Your task to perform on an android device: toggle wifi Image 0: 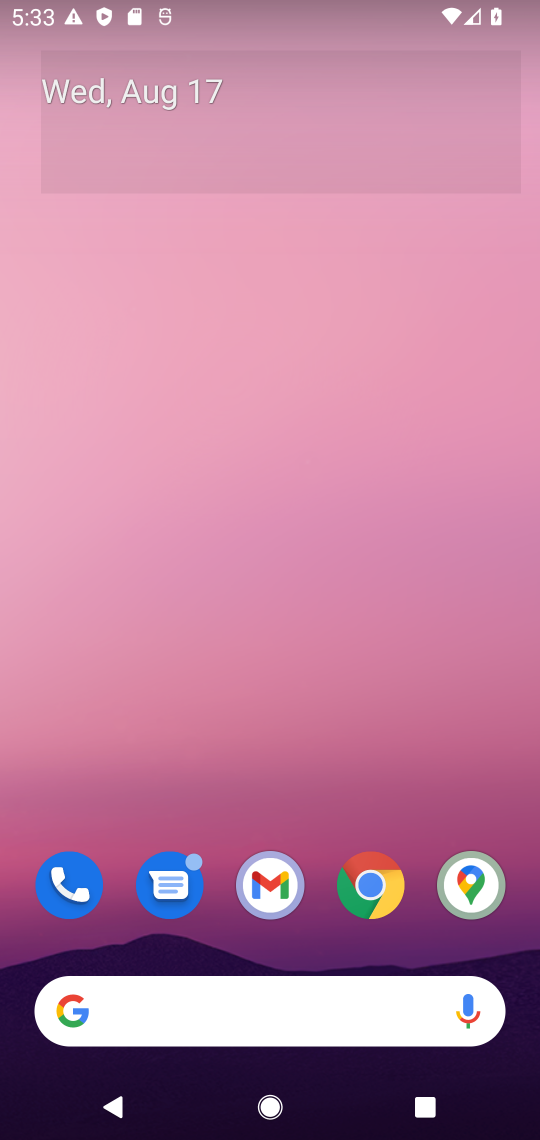
Step 0: drag from (364, 744) to (432, 18)
Your task to perform on an android device: toggle wifi Image 1: 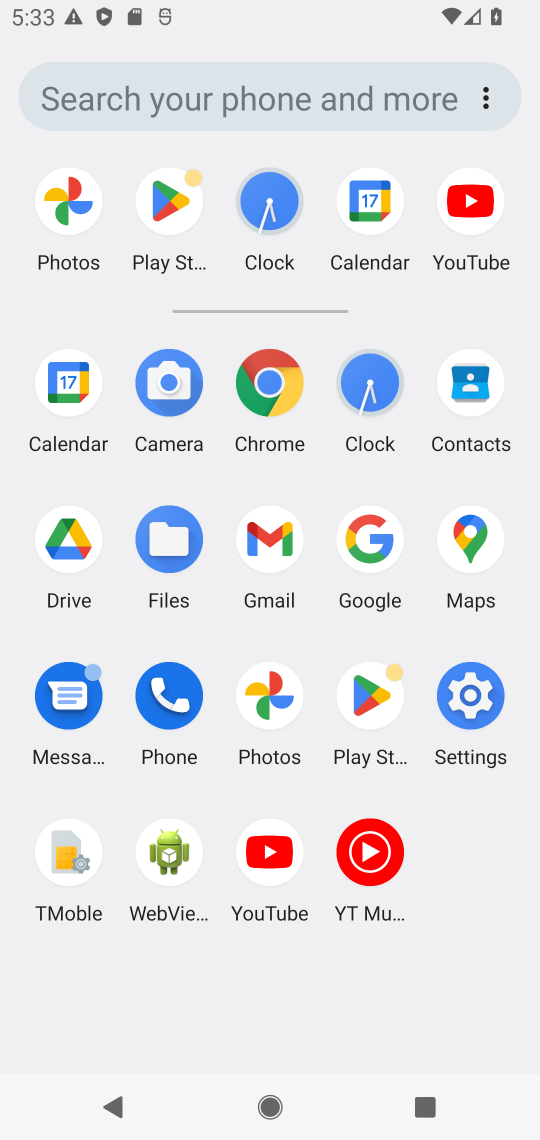
Step 1: click (463, 701)
Your task to perform on an android device: toggle wifi Image 2: 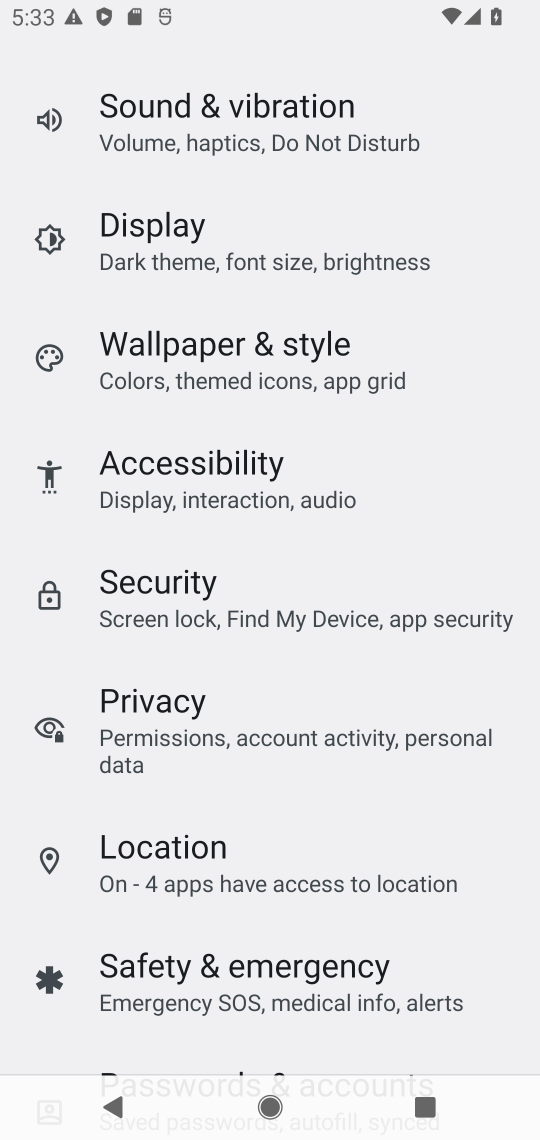
Step 2: drag from (356, 208) to (405, 734)
Your task to perform on an android device: toggle wifi Image 3: 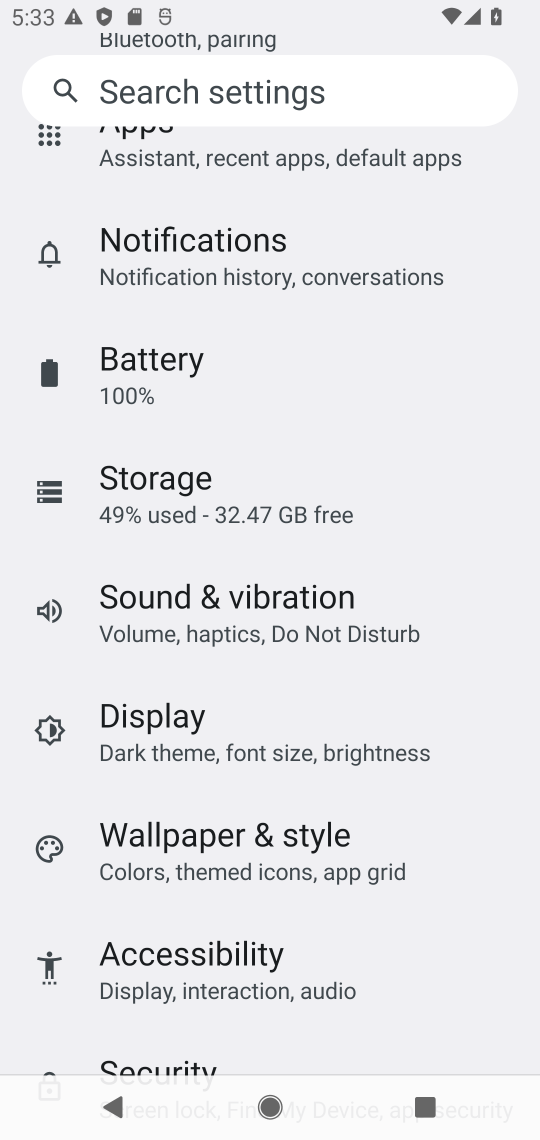
Step 3: drag from (351, 186) to (420, 724)
Your task to perform on an android device: toggle wifi Image 4: 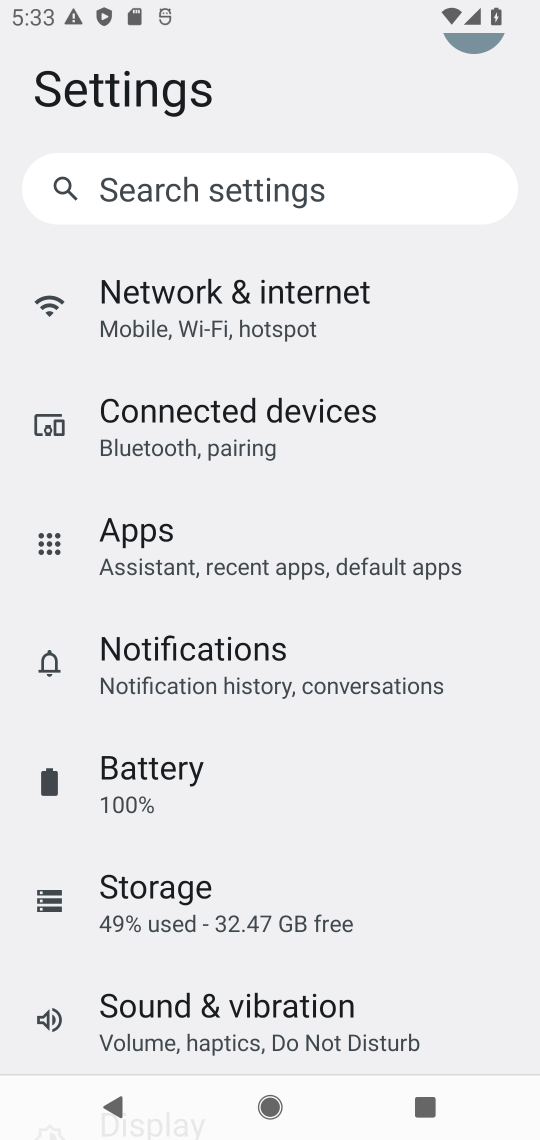
Step 4: click (268, 322)
Your task to perform on an android device: toggle wifi Image 5: 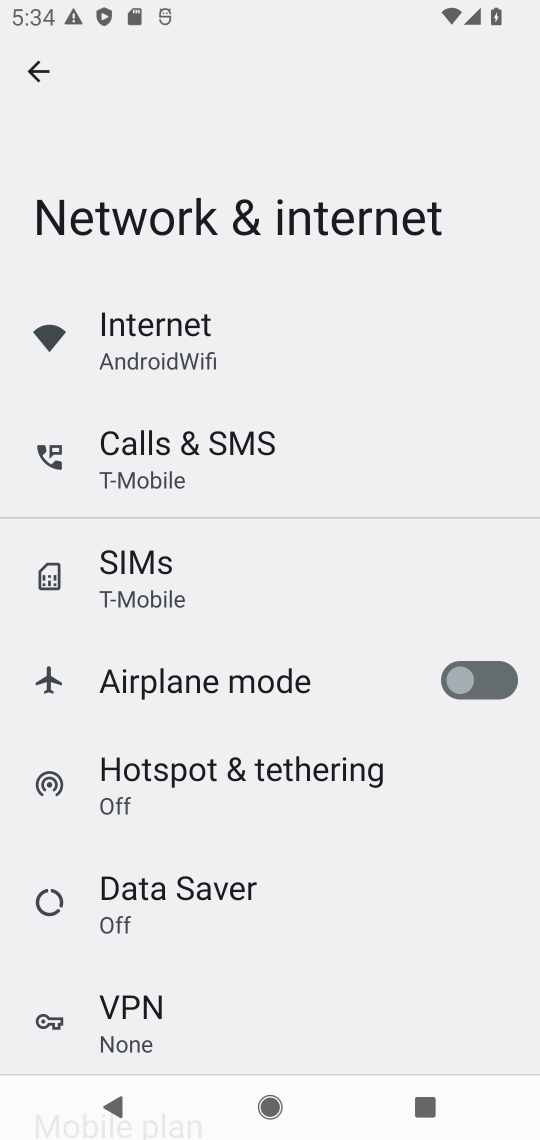
Step 5: click (216, 344)
Your task to perform on an android device: toggle wifi Image 6: 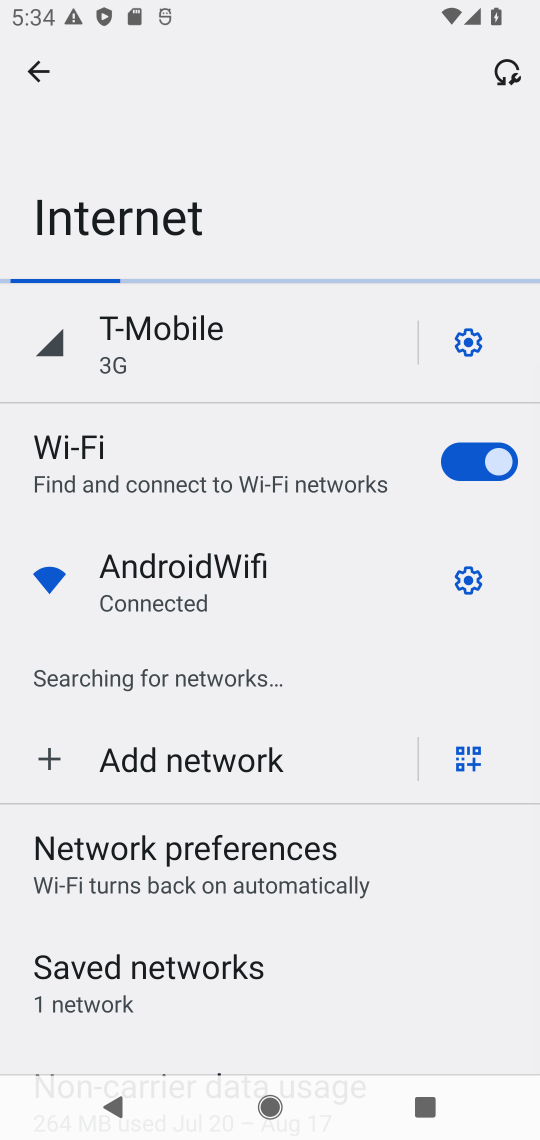
Step 6: click (465, 462)
Your task to perform on an android device: toggle wifi Image 7: 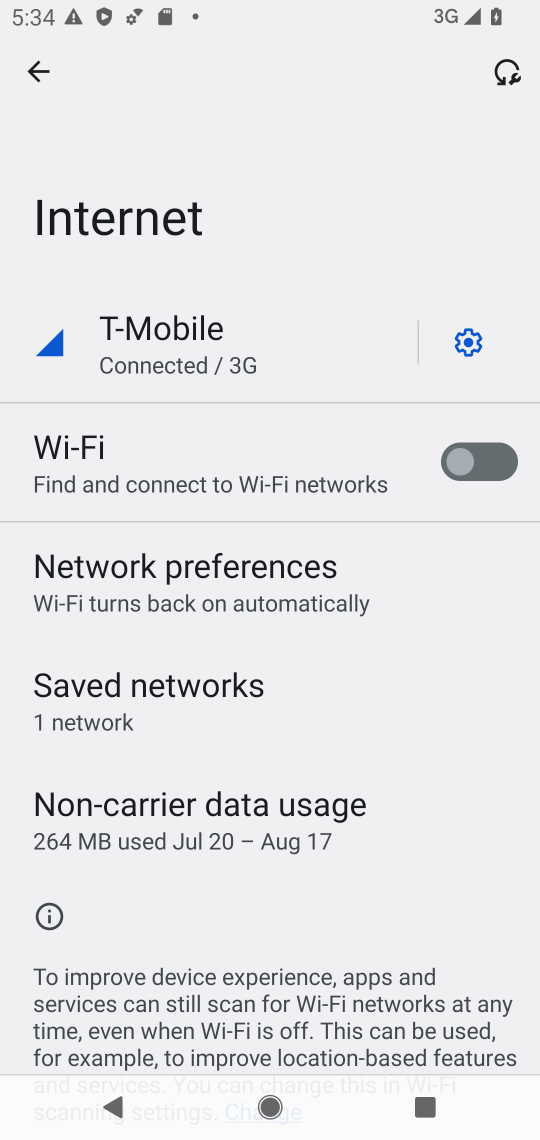
Step 7: task complete